Your task to perform on an android device: Go to Yahoo.com Image 0: 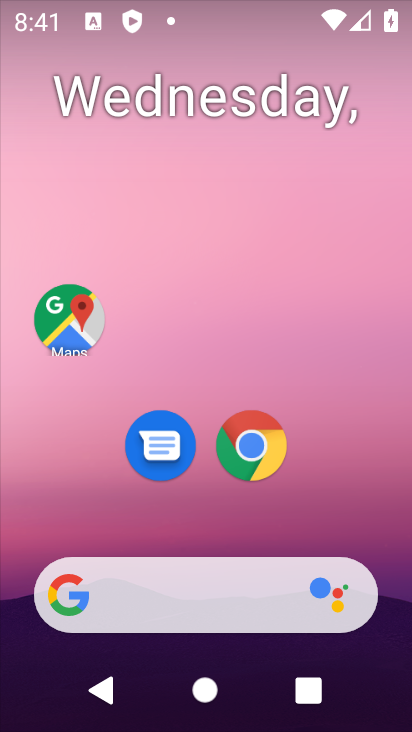
Step 0: click (249, 438)
Your task to perform on an android device: Go to Yahoo.com Image 1: 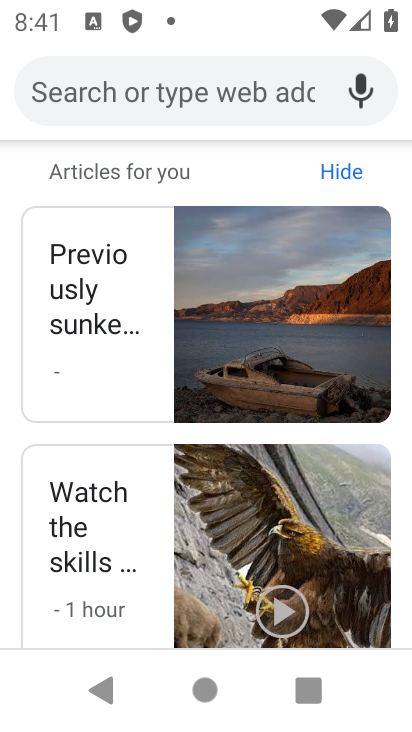
Step 1: click (236, 96)
Your task to perform on an android device: Go to Yahoo.com Image 2: 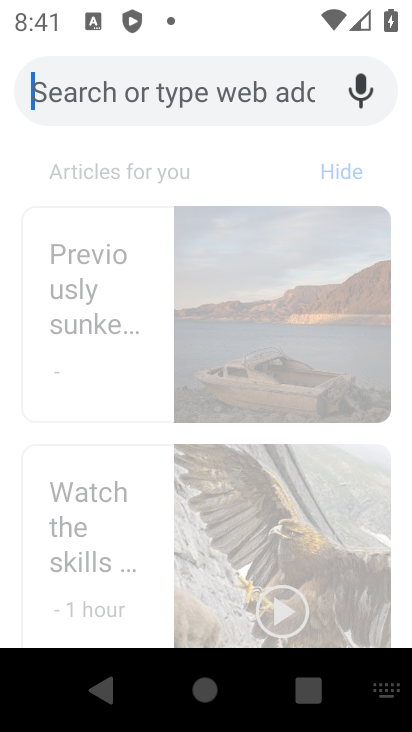
Step 2: type "yahoo"
Your task to perform on an android device: Go to Yahoo.com Image 3: 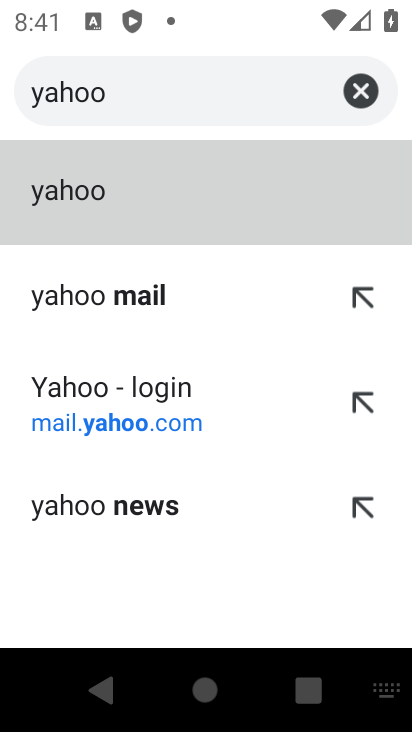
Step 3: click (60, 299)
Your task to perform on an android device: Go to Yahoo.com Image 4: 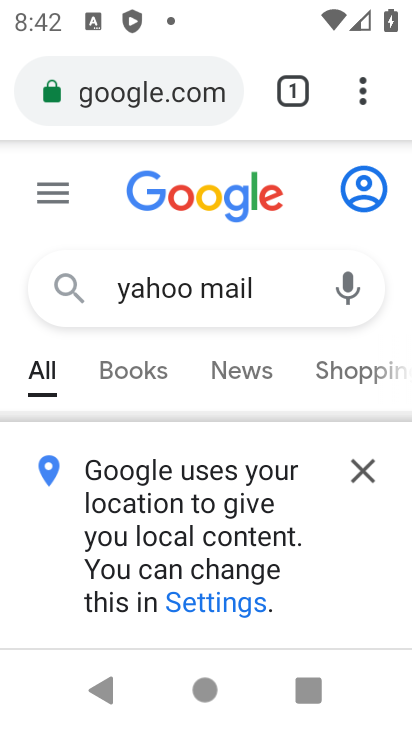
Step 4: task complete